Your task to perform on an android device: add a contact Image 0: 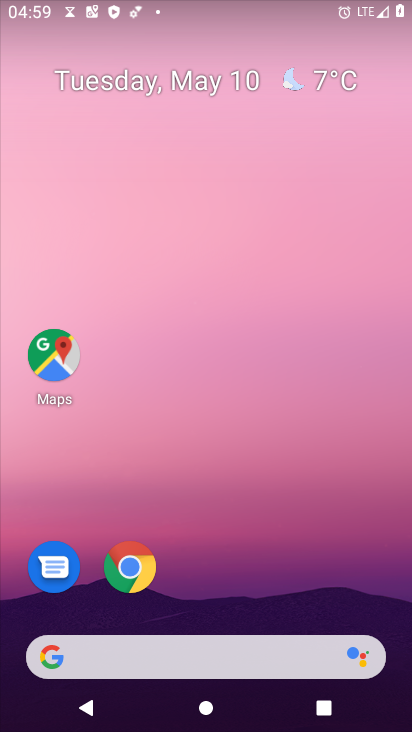
Step 0: drag from (270, 587) to (174, 58)
Your task to perform on an android device: add a contact Image 1: 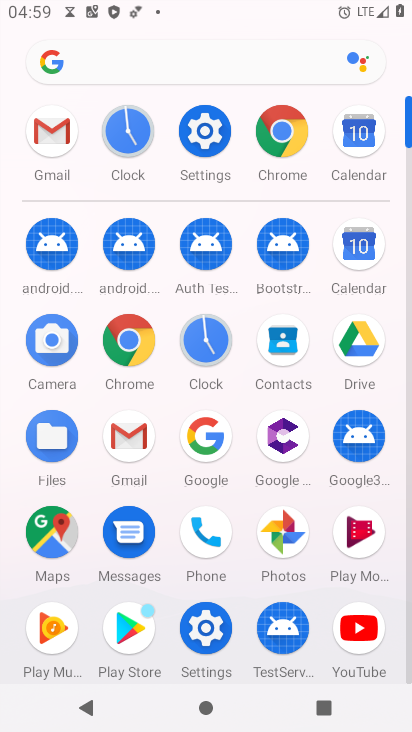
Step 1: click (284, 344)
Your task to perform on an android device: add a contact Image 2: 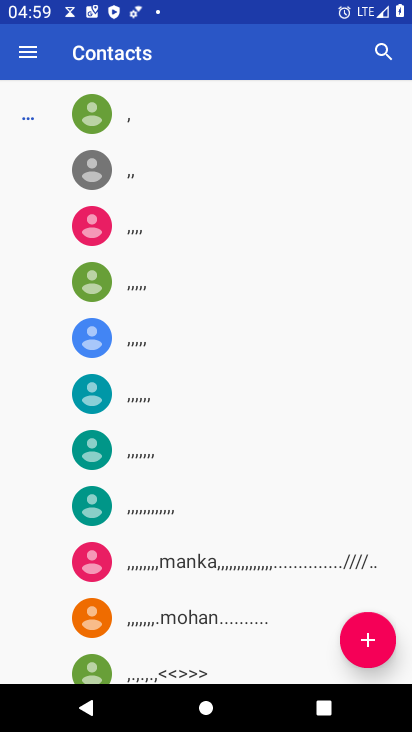
Step 2: click (366, 639)
Your task to perform on an android device: add a contact Image 3: 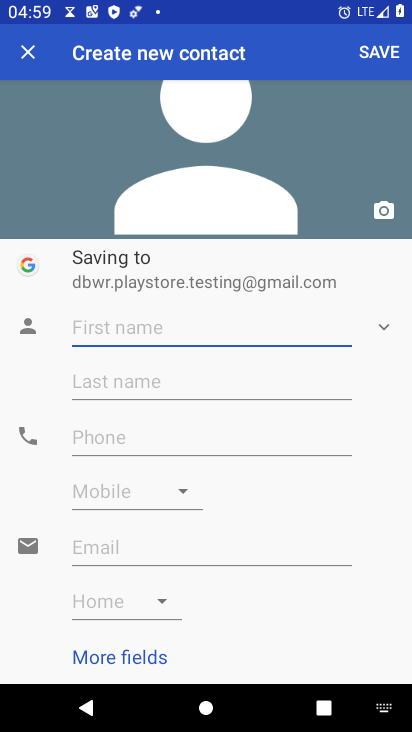
Step 3: click (181, 319)
Your task to perform on an android device: add a contact Image 4: 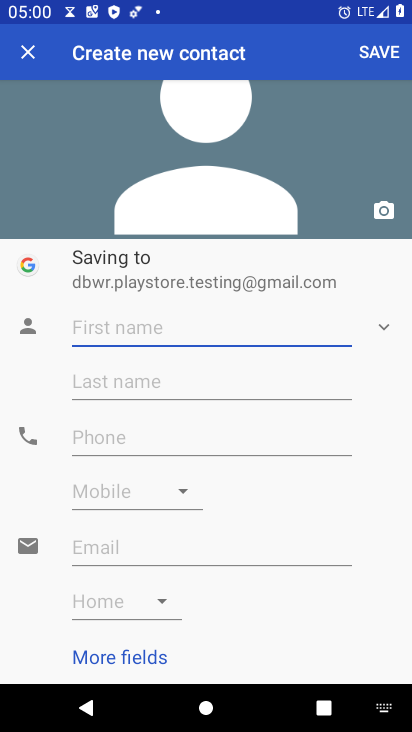
Step 4: type "Ramakrishnan"
Your task to perform on an android device: add a contact Image 5: 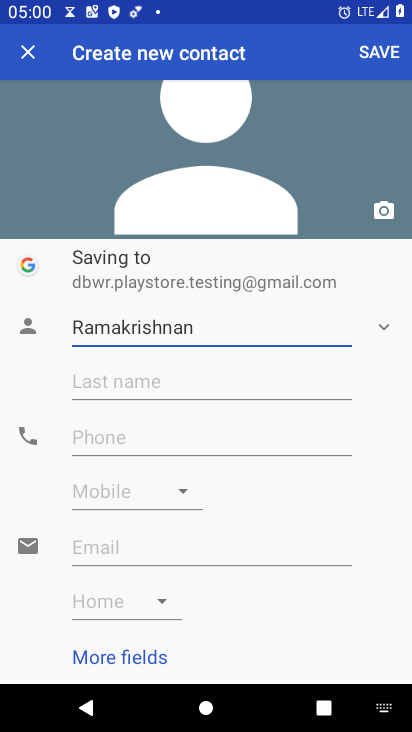
Step 5: click (324, 392)
Your task to perform on an android device: add a contact Image 6: 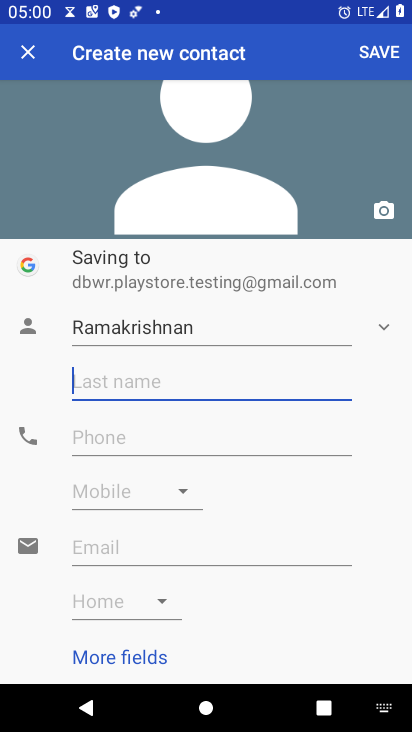
Step 6: type "Anujacharya"
Your task to perform on an android device: add a contact Image 7: 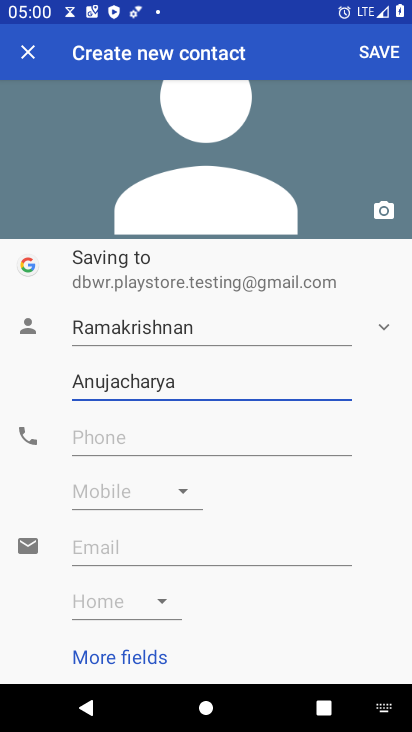
Step 7: click (174, 446)
Your task to perform on an android device: add a contact Image 8: 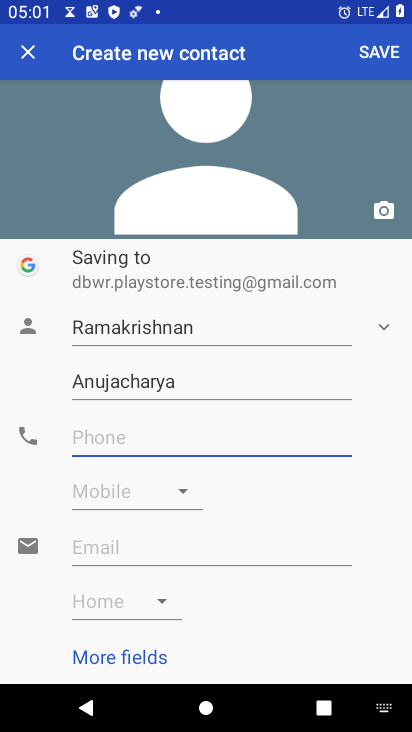
Step 8: type "0654876324"
Your task to perform on an android device: add a contact Image 9: 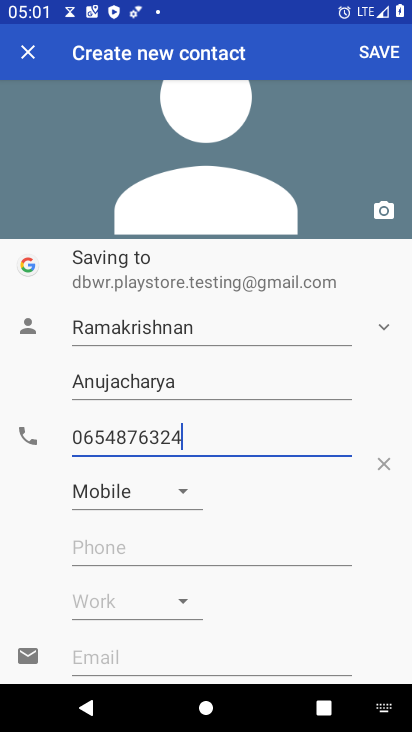
Step 9: click (371, 55)
Your task to perform on an android device: add a contact Image 10: 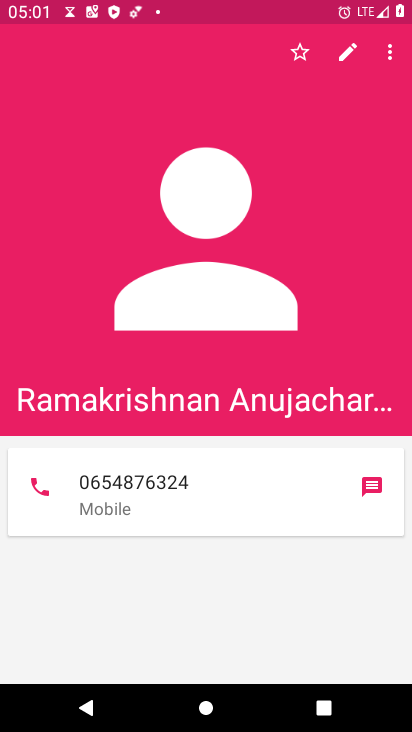
Step 10: task complete